Your task to perform on an android device: Open Reddit.com Image 0: 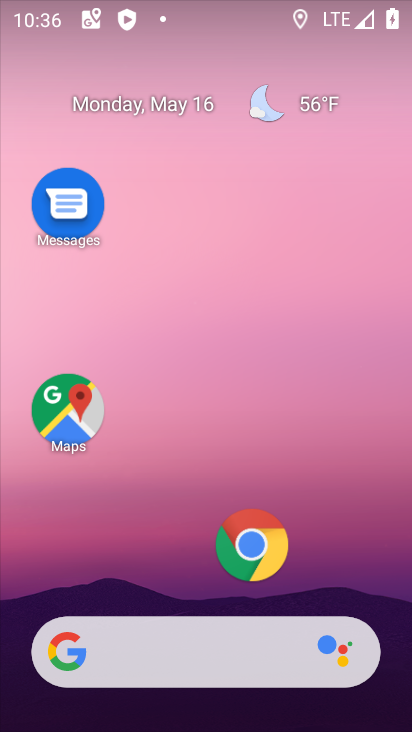
Step 0: drag from (221, 603) to (254, 5)
Your task to perform on an android device: Open Reddit.com Image 1: 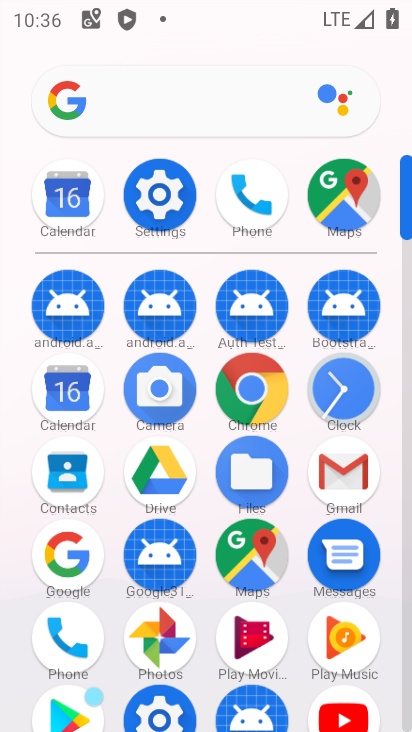
Step 1: click (247, 398)
Your task to perform on an android device: Open Reddit.com Image 2: 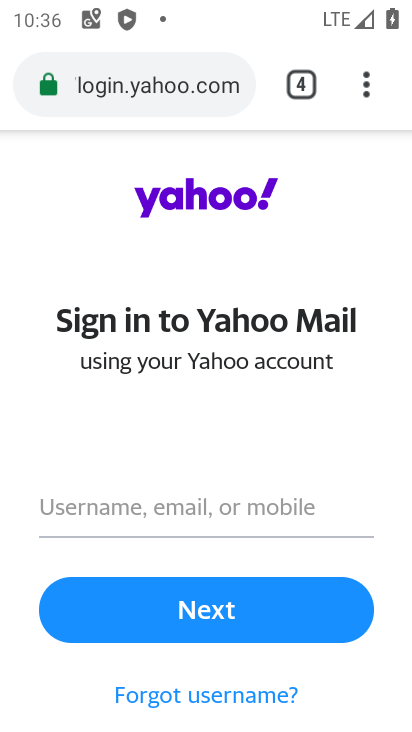
Step 2: click (284, 101)
Your task to perform on an android device: Open Reddit.com Image 3: 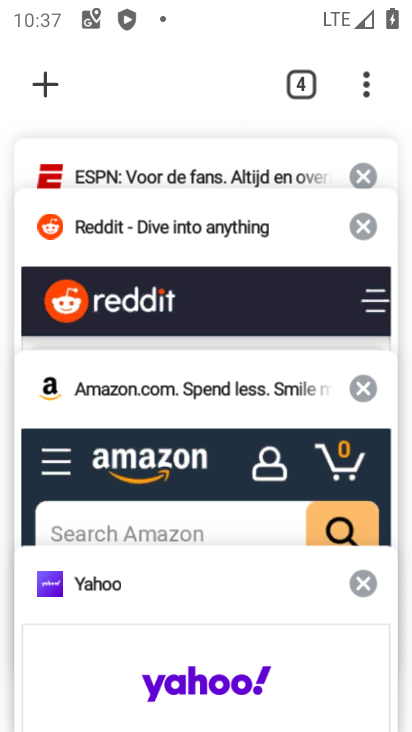
Step 3: click (186, 615)
Your task to perform on an android device: Open Reddit.com Image 4: 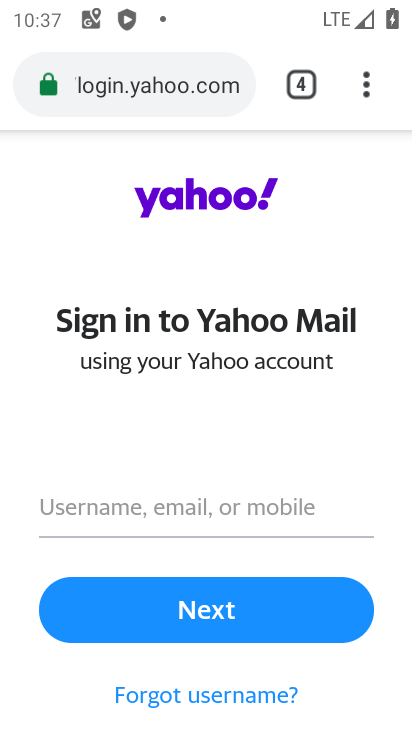
Step 4: click (314, 85)
Your task to perform on an android device: Open Reddit.com Image 5: 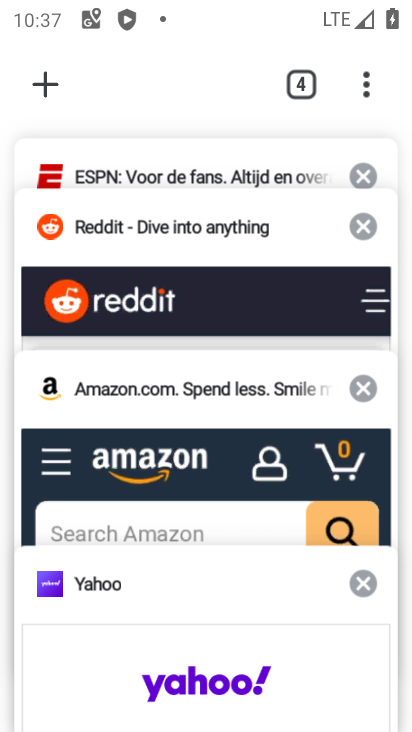
Step 5: click (186, 246)
Your task to perform on an android device: Open Reddit.com Image 6: 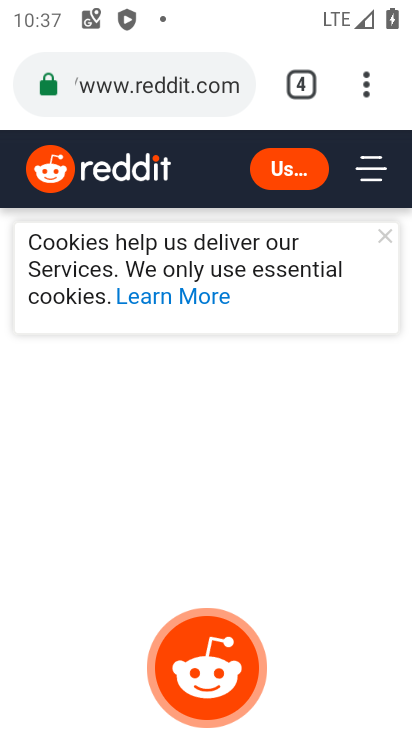
Step 6: task complete